Your task to perform on an android device: Check the news Image 0: 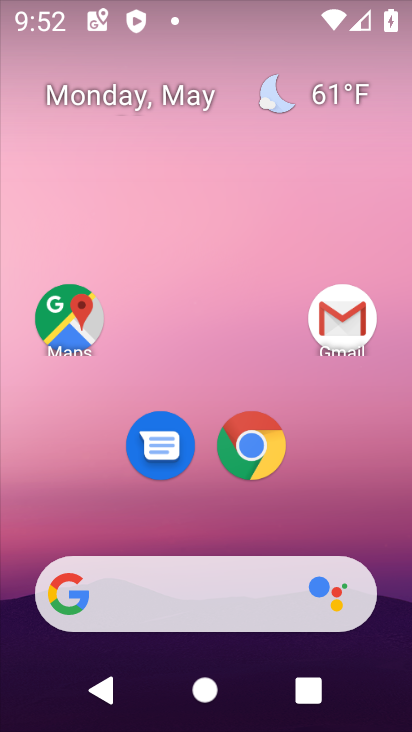
Step 0: drag from (1, 221) to (408, 293)
Your task to perform on an android device: Check the news Image 1: 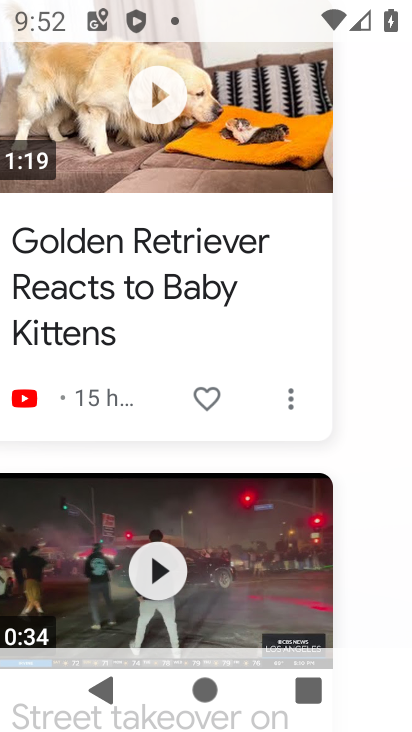
Step 1: task complete